Your task to perform on an android device: Open the phone app and click the voicemail tab. Image 0: 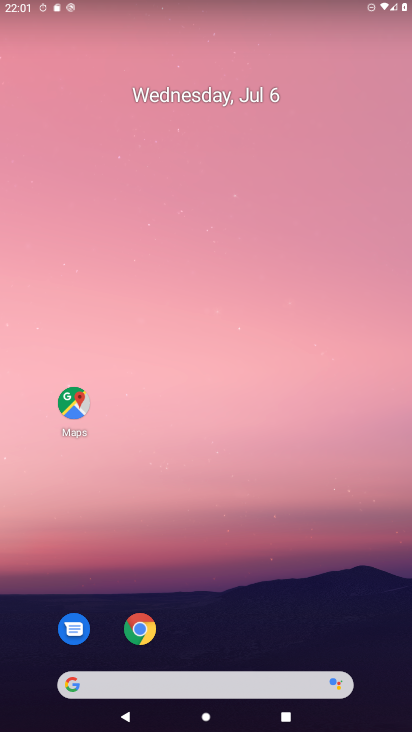
Step 0: drag from (227, 729) to (227, 665)
Your task to perform on an android device: Open the phone app and click the voicemail tab. Image 1: 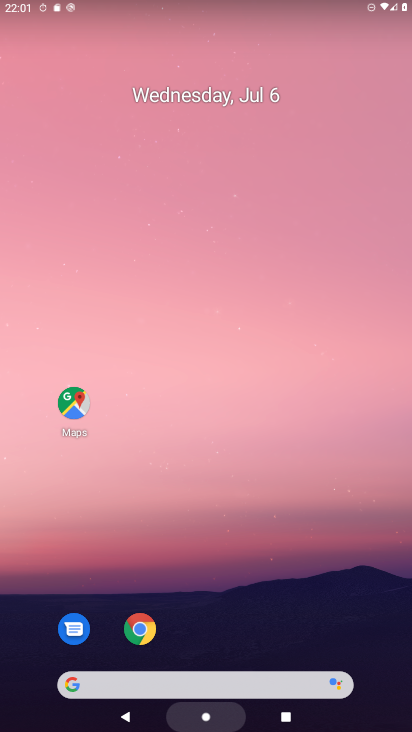
Step 1: drag from (179, 146) to (175, 105)
Your task to perform on an android device: Open the phone app and click the voicemail tab. Image 2: 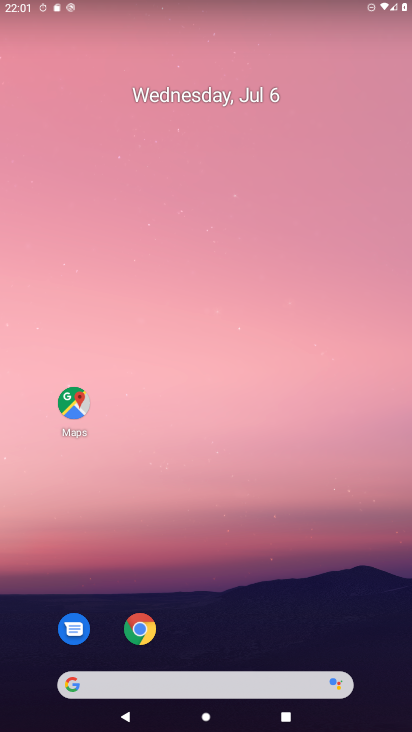
Step 2: drag from (239, 731) to (205, 20)
Your task to perform on an android device: Open the phone app and click the voicemail tab. Image 3: 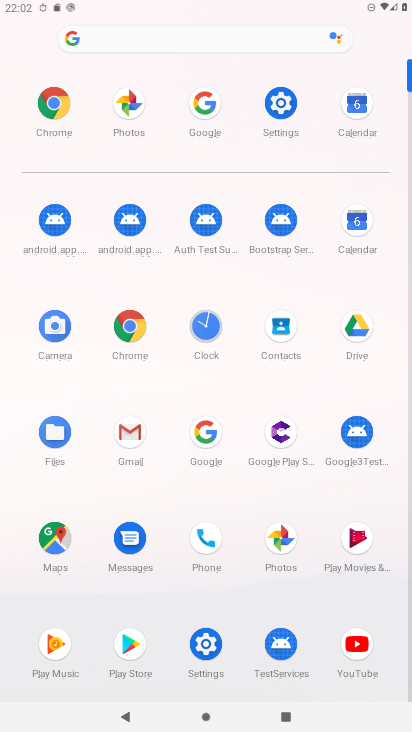
Step 3: click (207, 537)
Your task to perform on an android device: Open the phone app and click the voicemail tab. Image 4: 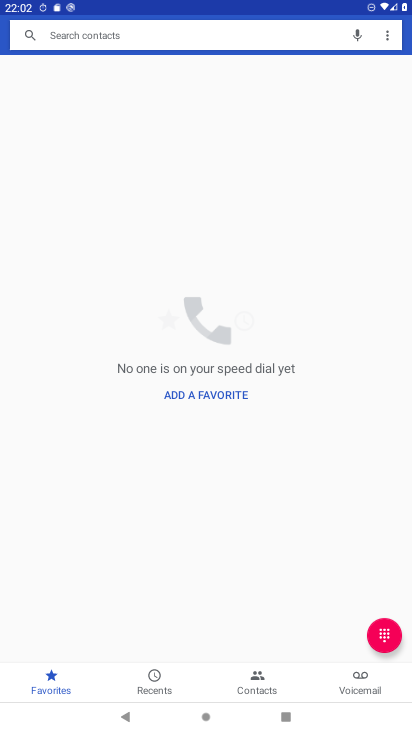
Step 4: click (365, 676)
Your task to perform on an android device: Open the phone app and click the voicemail tab. Image 5: 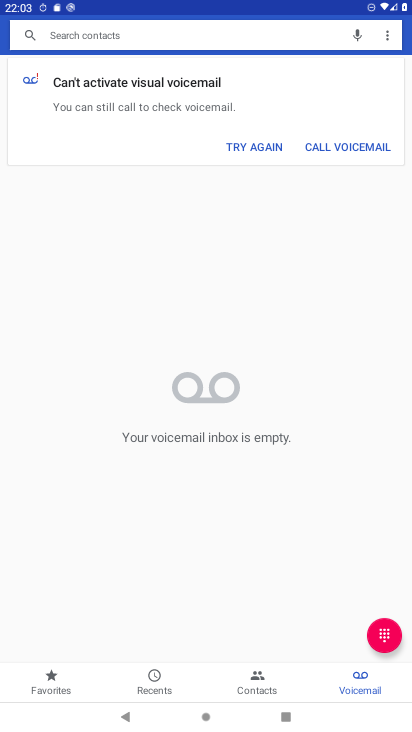
Step 5: click (361, 677)
Your task to perform on an android device: Open the phone app and click the voicemail tab. Image 6: 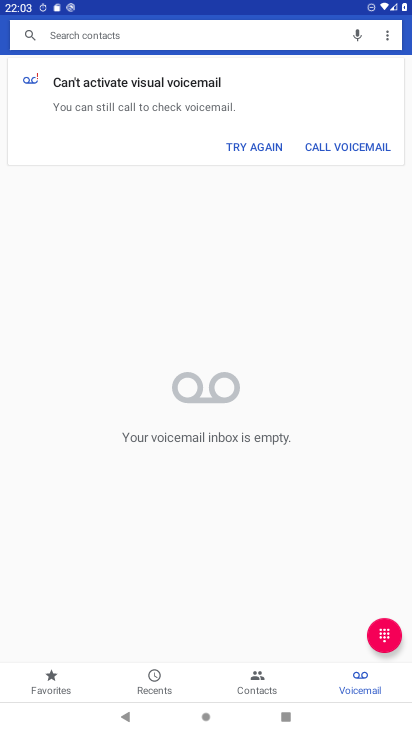
Step 6: task complete